Your task to perform on an android device: When is my next appointment? Image 0: 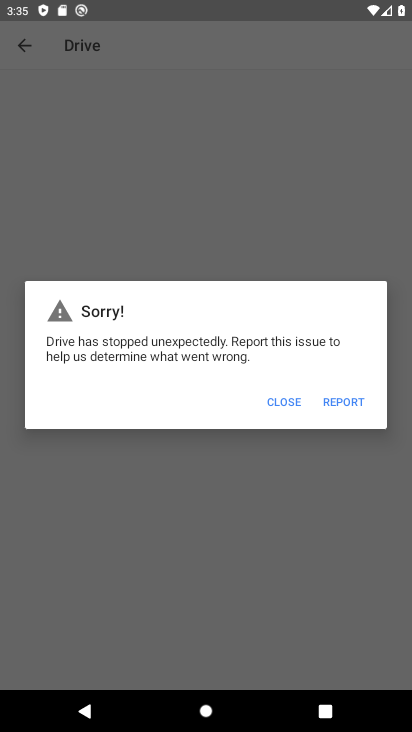
Step 0: press home button
Your task to perform on an android device: When is my next appointment? Image 1: 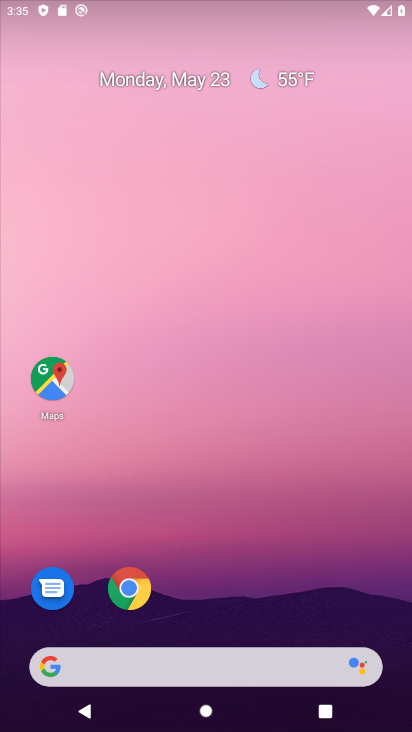
Step 1: drag from (197, 598) to (220, 127)
Your task to perform on an android device: When is my next appointment? Image 2: 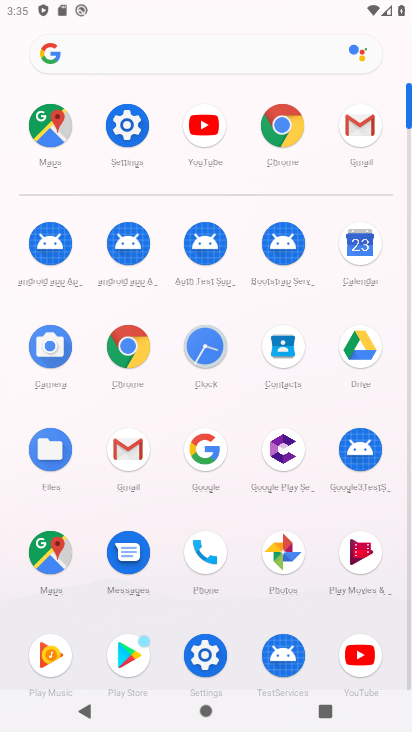
Step 2: click (365, 245)
Your task to perform on an android device: When is my next appointment? Image 3: 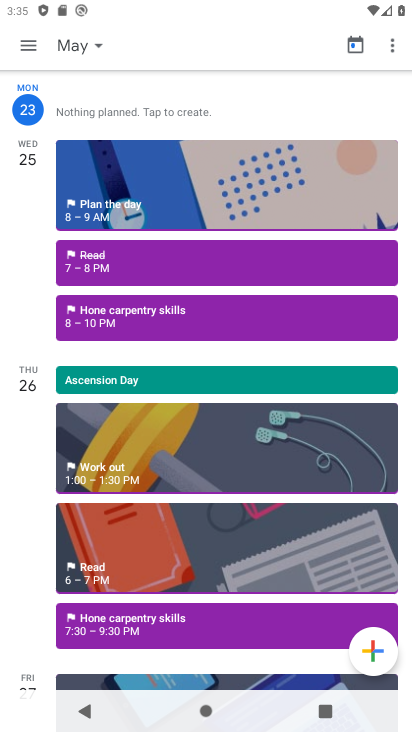
Step 3: click (94, 56)
Your task to perform on an android device: When is my next appointment? Image 4: 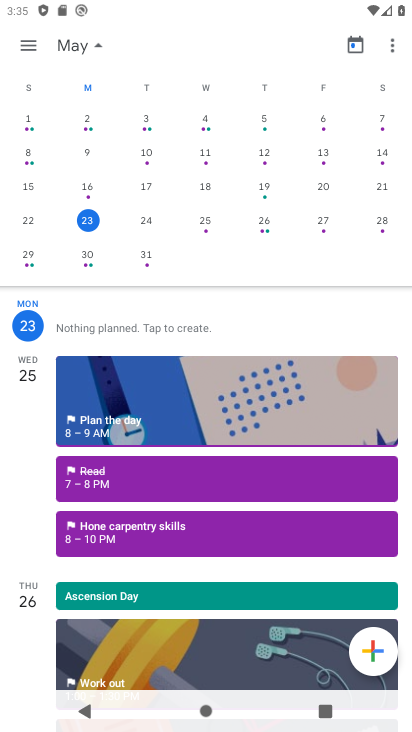
Step 4: click (255, 225)
Your task to perform on an android device: When is my next appointment? Image 5: 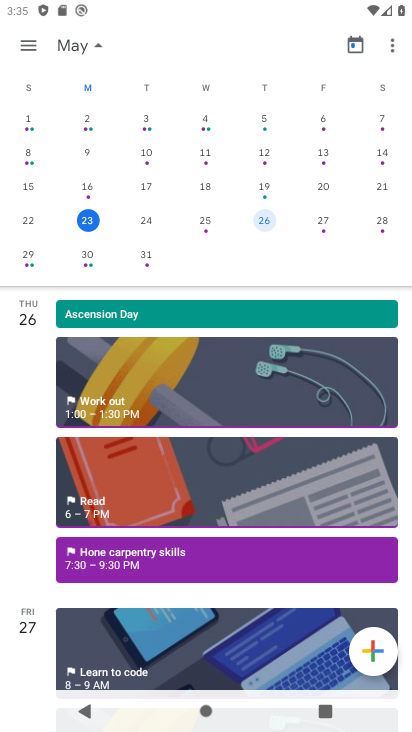
Step 5: task complete